Your task to perform on an android device: Set the phone to "Do not disturb". Image 0: 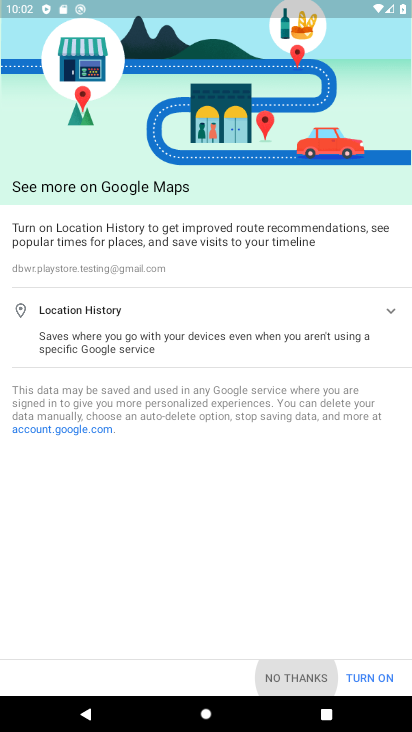
Step 0: press home button
Your task to perform on an android device: Set the phone to "Do not disturb". Image 1: 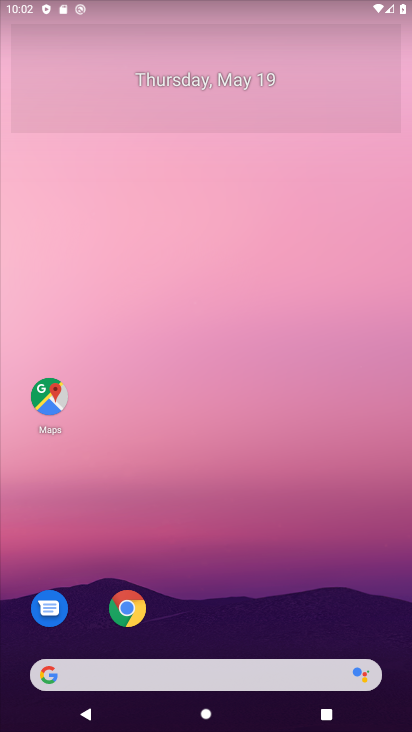
Step 1: drag from (230, 562) to (223, 134)
Your task to perform on an android device: Set the phone to "Do not disturb". Image 2: 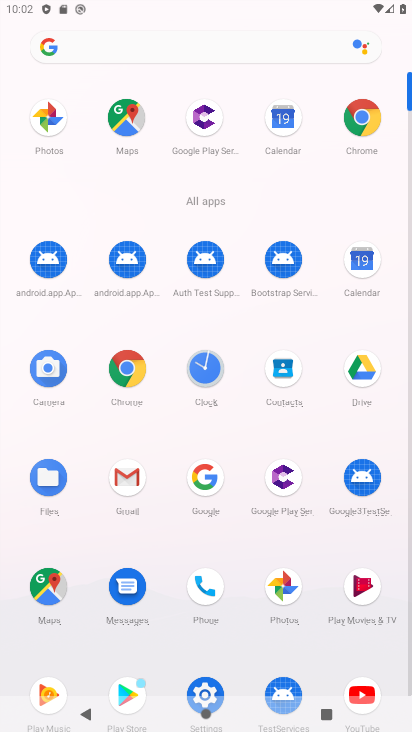
Step 2: click (203, 688)
Your task to perform on an android device: Set the phone to "Do not disturb". Image 3: 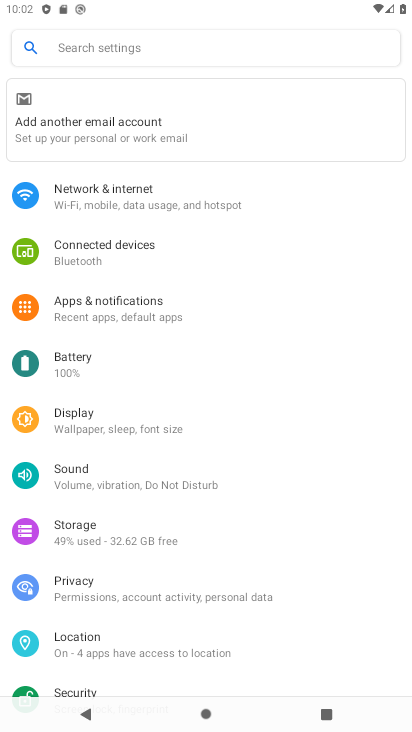
Step 3: click (162, 482)
Your task to perform on an android device: Set the phone to "Do not disturb". Image 4: 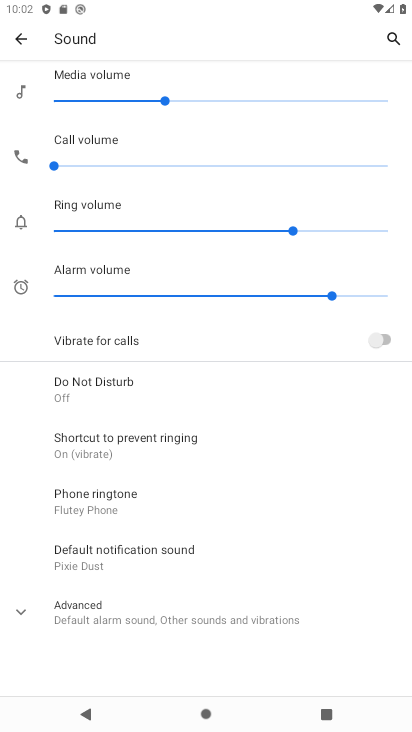
Step 4: click (142, 374)
Your task to perform on an android device: Set the phone to "Do not disturb". Image 5: 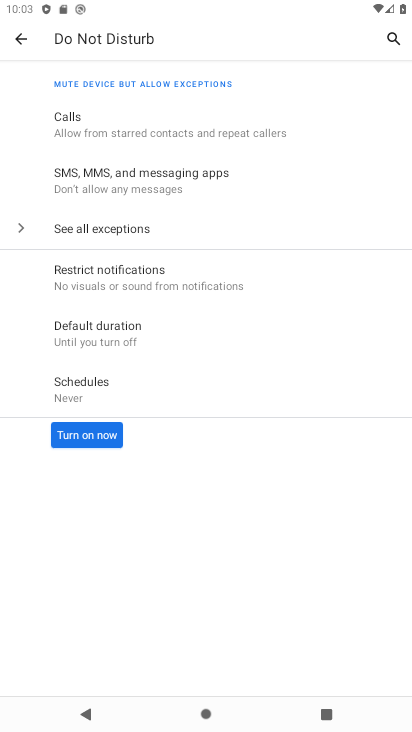
Step 5: click (95, 434)
Your task to perform on an android device: Set the phone to "Do not disturb". Image 6: 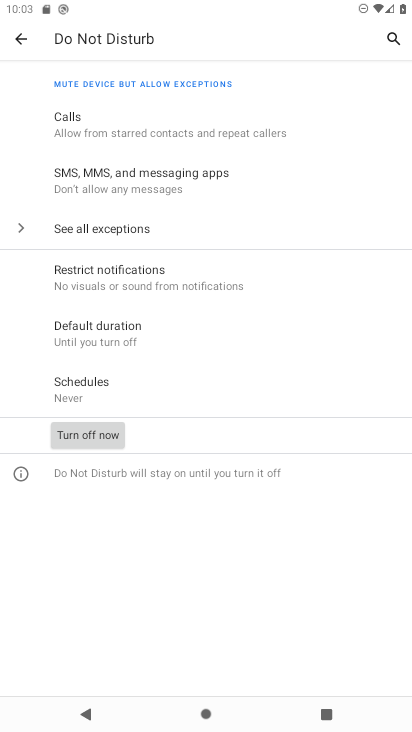
Step 6: task complete